Your task to perform on an android device: turn on notifications settings in the gmail app Image 0: 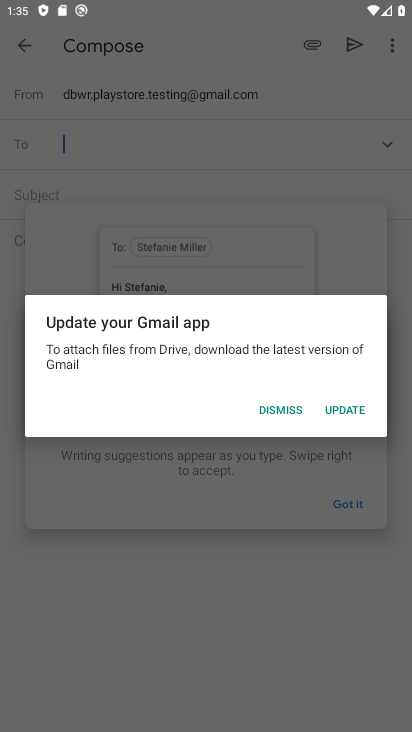
Step 0: press back button
Your task to perform on an android device: turn on notifications settings in the gmail app Image 1: 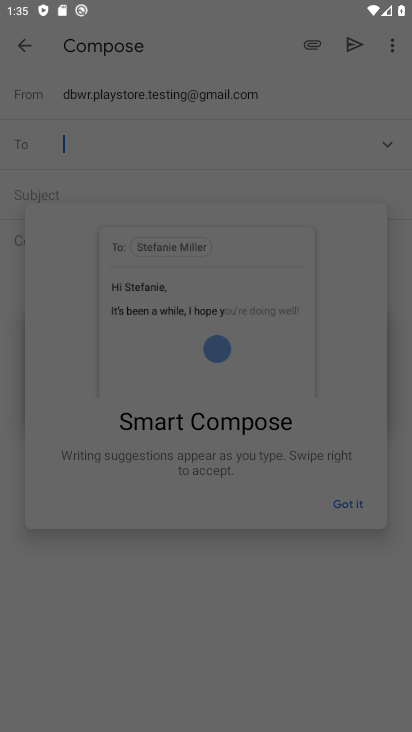
Step 1: press back button
Your task to perform on an android device: turn on notifications settings in the gmail app Image 2: 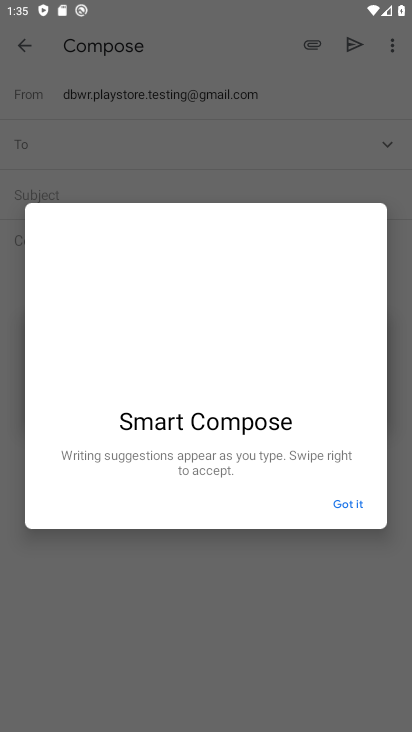
Step 2: press back button
Your task to perform on an android device: turn on notifications settings in the gmail app Image 3: 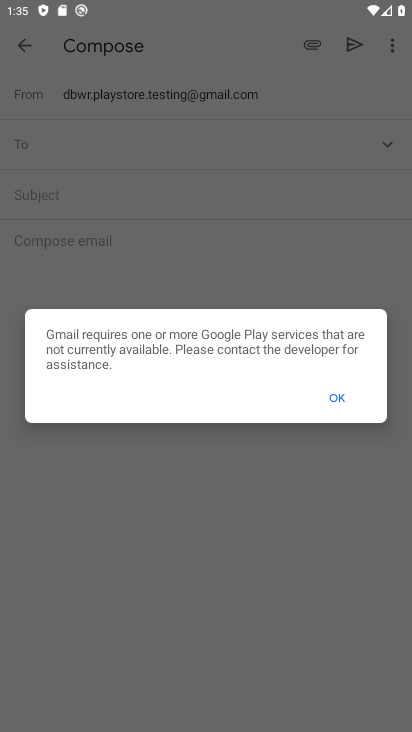
Step 3: press home button
Your task to perform on an android device: turn on notifications settings in the gmail app Image 4: 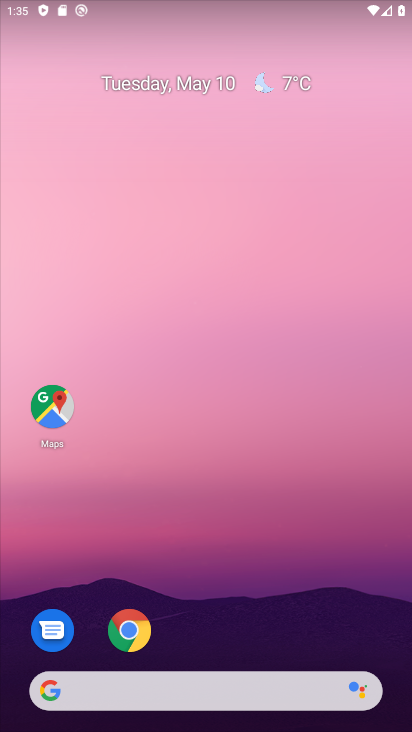
Step 4: drag from (249, 431) to (210, 46)
Your task to perform on an android device: turn on notifications settings in the gmail app Image 5: 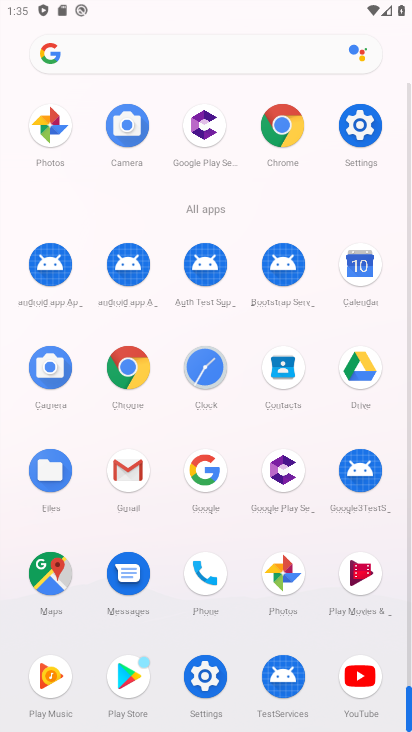
Step 5: click (129, 466)
Your task to perform on an android device: turn on notifications settings in the gmail app Image 6: 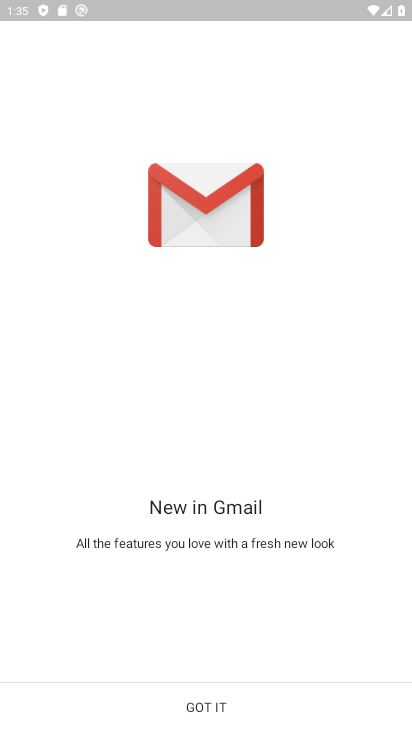
Step 6: click (202, 703)
Your task to perform on an android device: turn on notifications settings in the gmail app Image 7: 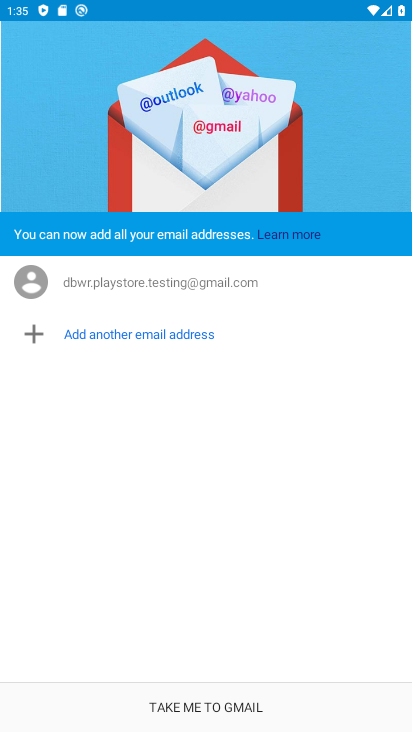
Step 7: click (202, 707)
Your task to perform on an android device: turn on notifications settings in the gmail app Image 8: 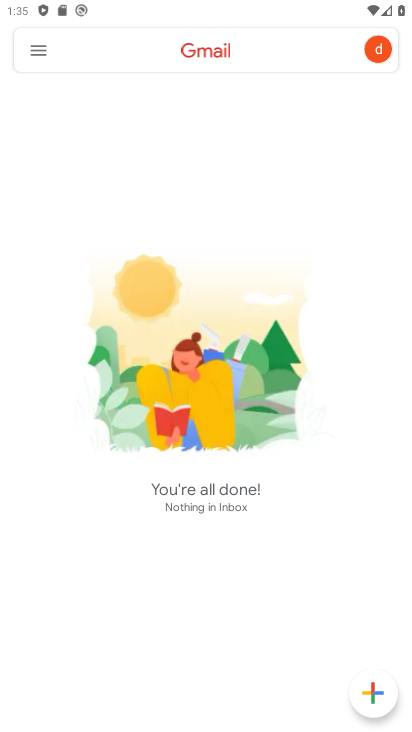
Step 8: click (41, 40)
Your task to perform on an android device: turn on notifications settings in the gmail app Image 9: 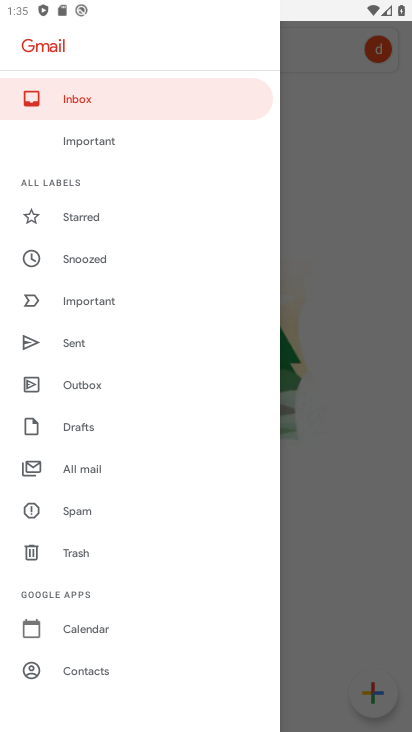
Step 9: drag from (134, 615) to (171, 145)
Your task to perform on an android device: turn on notifications settings in the gmail app Image 10: 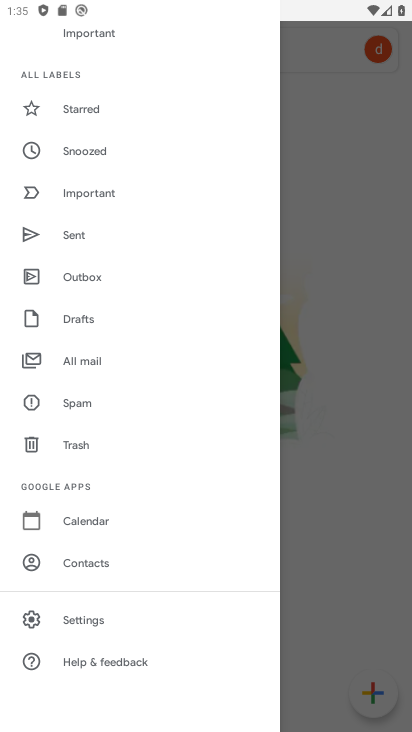
Step 10: click (79, 609)
Your task to perform on an android device: turn on notifications settings in the gmail app Image 11: 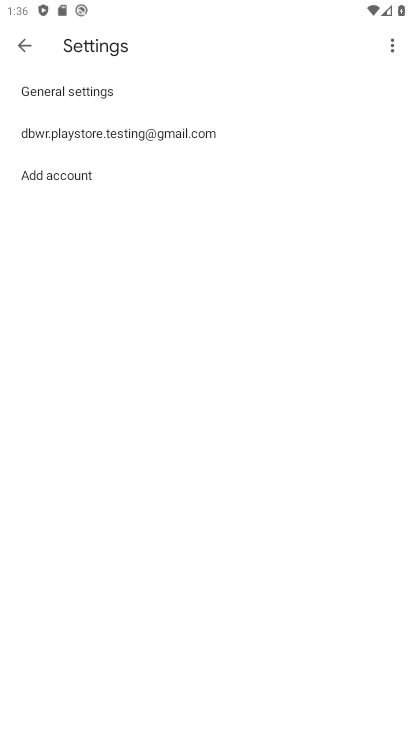
Step 11: click (157, 141)
Your task to perform on an android device: turn on notifications settings in the gmail app Image 12: 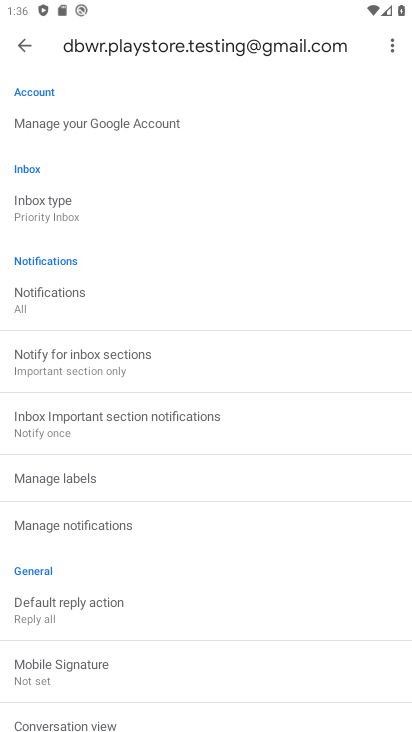
Step 12: click (93, 530)
Your task to perform on an android device: turn on notifications settings in the gmail app Image 13: 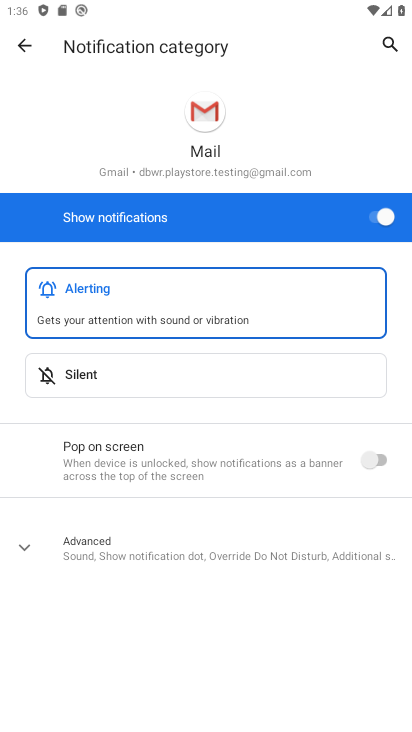
Step 13: task complete